Your task to perform on an android device: Check the news Image 0: 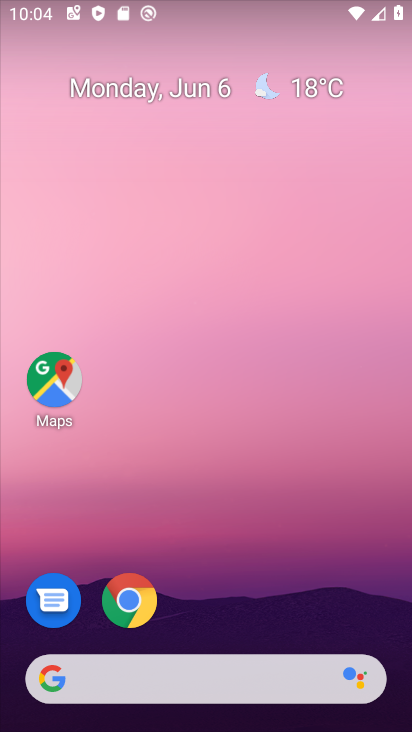
Step 0: drag from (234, 567) to (226, 28)
Your task to perform on an android device: Check the news Image 1: 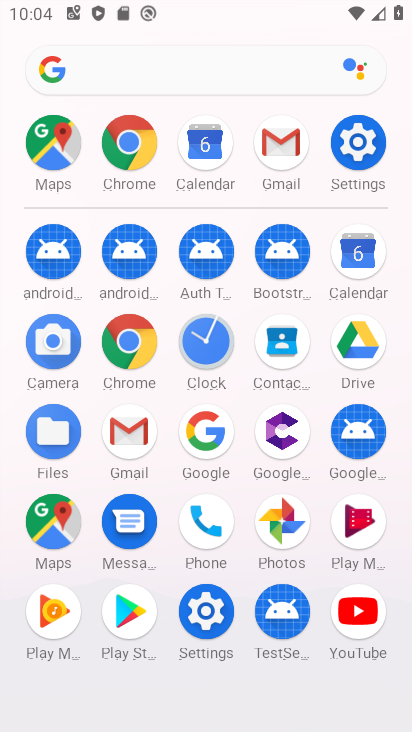
Step 1: click (123, 341)
Your task to perform on an android device: Check the news Image 2: 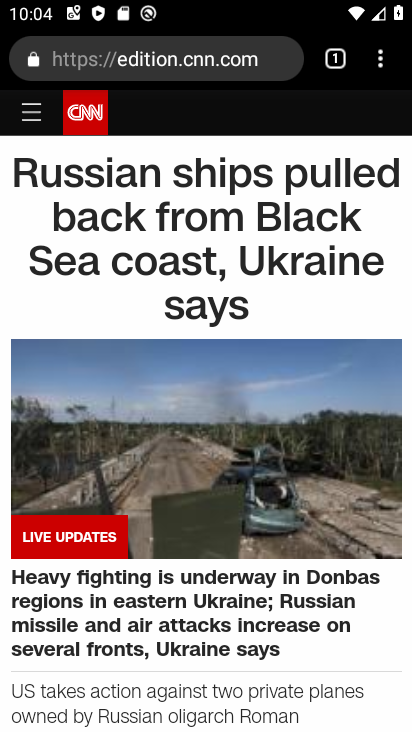
Step 2: click (178, 47)
Your task to perform on an android device: Check the news Image 3: 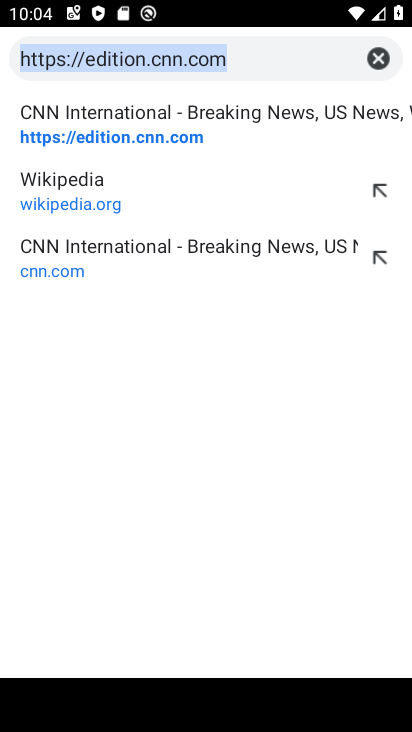
Step 3: click (382, 55)
Your task to perform on an android device: Check the news Image 4: 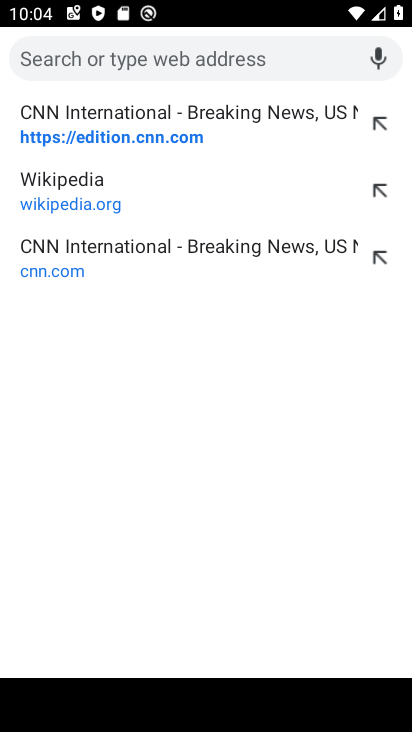
Step 4: type "Check the news"
Your task to perform on an android device: Check the news Image 5: 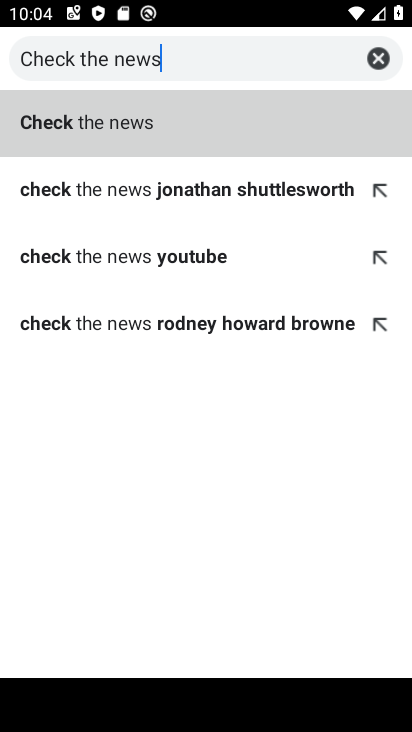
Step 5: type ""
Your task to perform on an android device: Check the news Image 6: 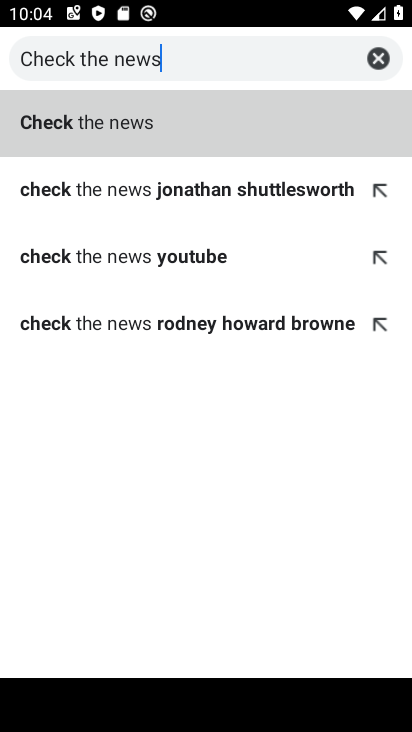
Step 6: click (193, 122)
Your task to perform on an android device: Check the news Image 7: 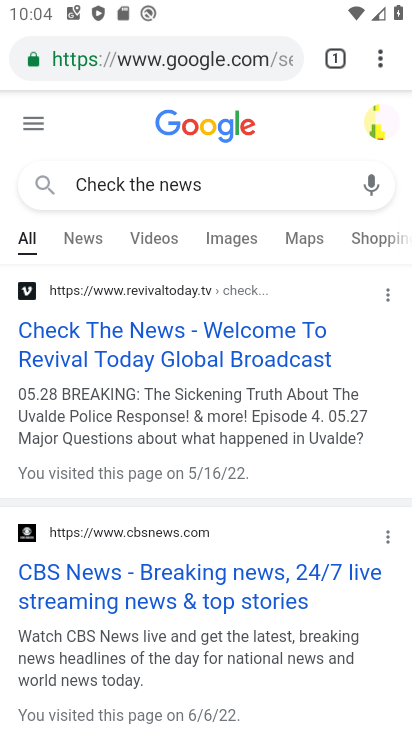
Step 7: click (82, 228)
Your task to perform on an android device: Check the news Image 8: 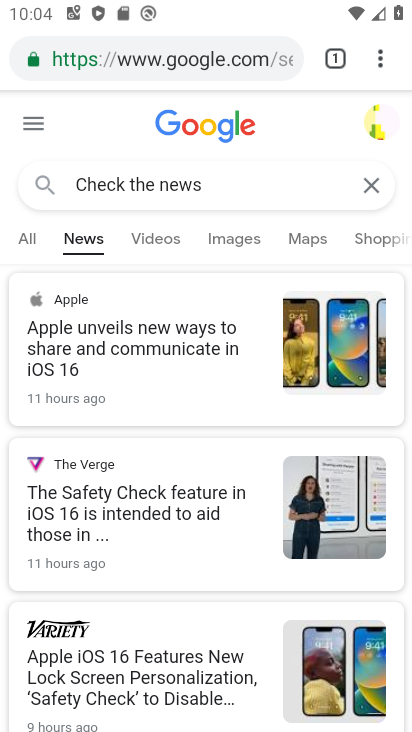
Step 8: task complete